Your task to perform on an android device: Open Google Chrome Image 0: 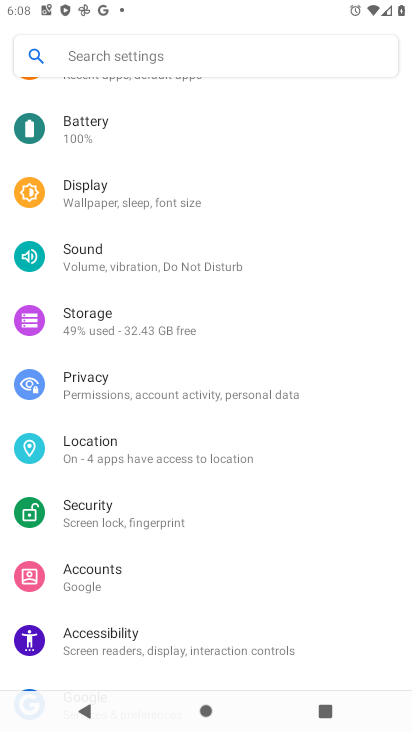
Step 0: press back button
Your task to perform on an android device: Open Google Chrome Image 1: 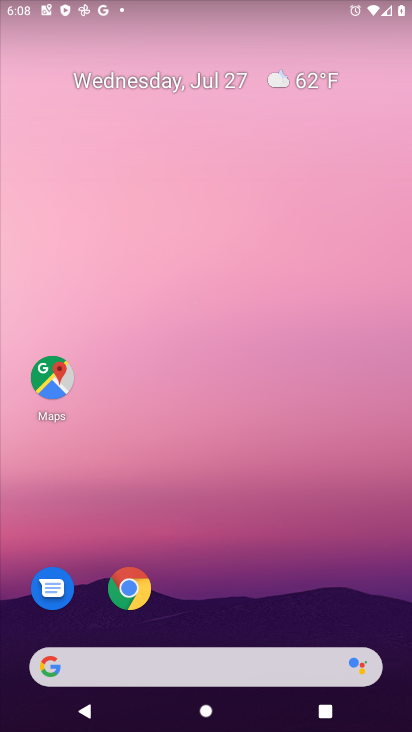
Step 1: click (131, 586)
Your task to perform on an android device: Open Google Chrome Image 2: 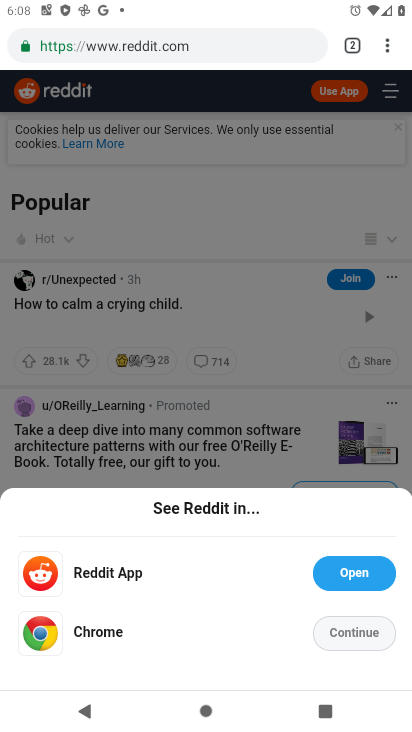
Step 2: task complete